Your task to perform on an android device: change timer sound Image 0: 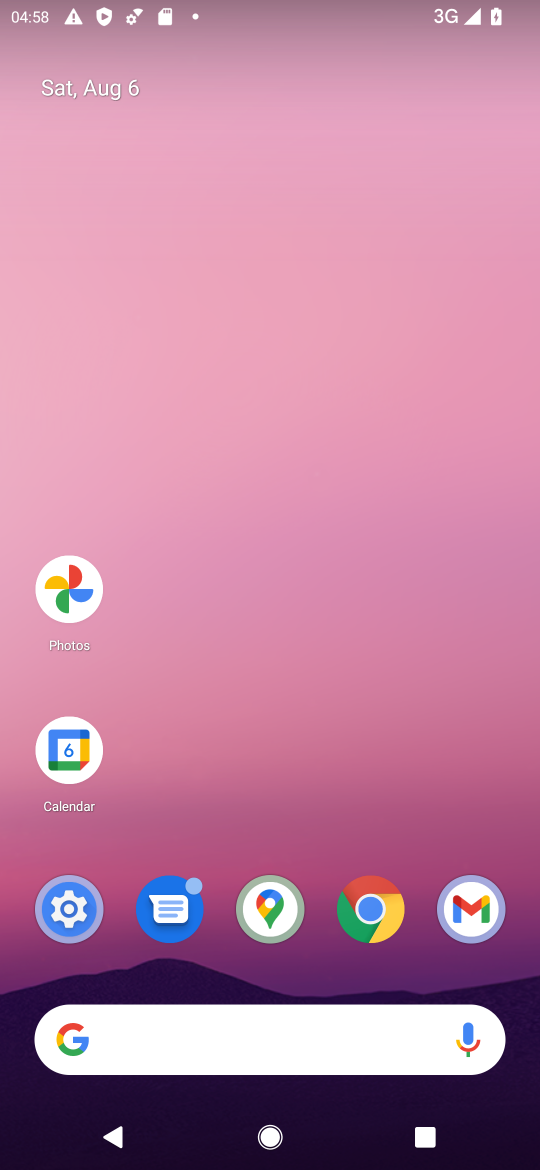
Step 0: drag from (301, 800) to (232, 435)
Your task to perform on an android device: change timer sound Image 1: 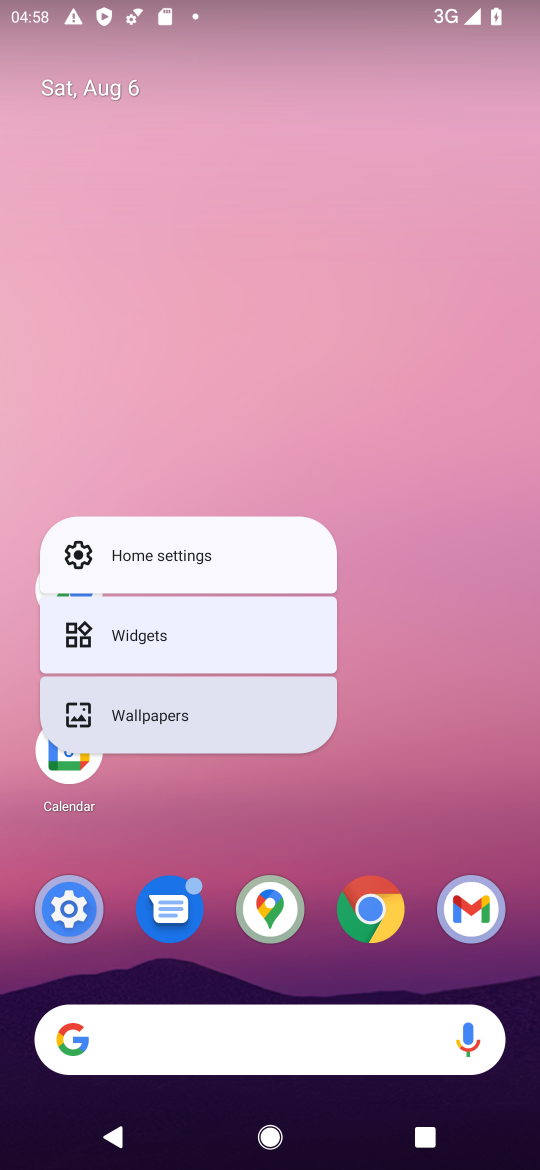
Step 1: click (445, 648)
Your task to perform on an android device: change timer sound Image 2: 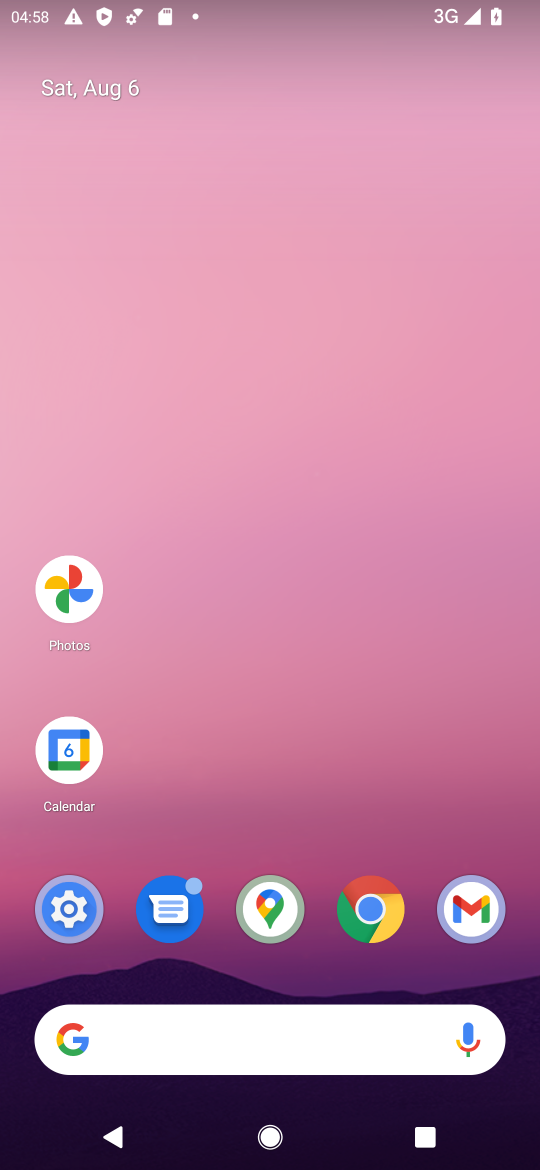
Step 2: drag from (301, 677) to (283, 223)
Your task to perform on an android device: change timer sound Image 3: 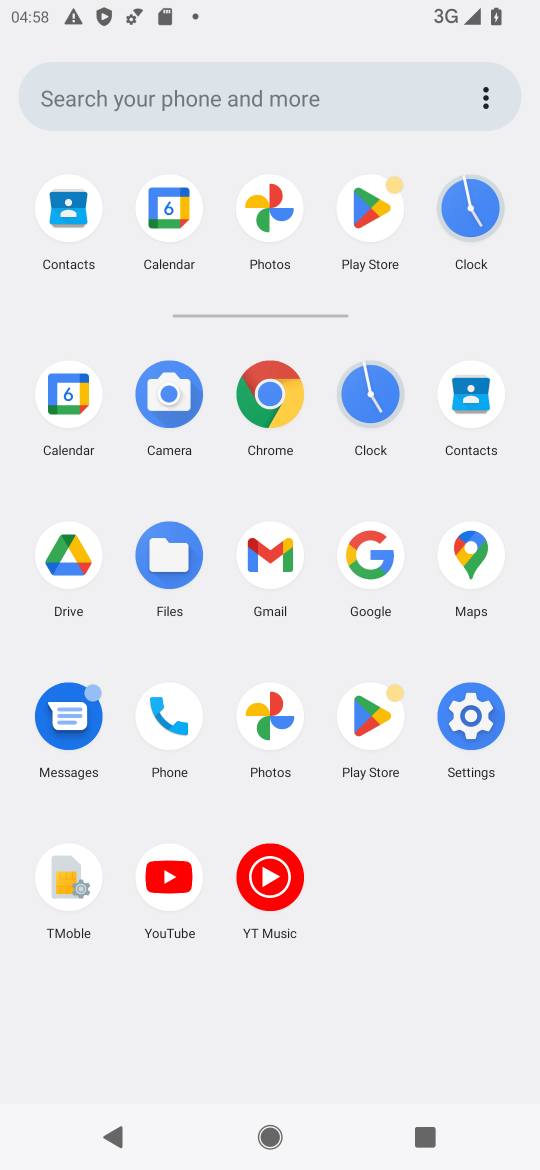
Step 3: click (358, 396)
Your task to perform on an android device: change timer sound Image 4: 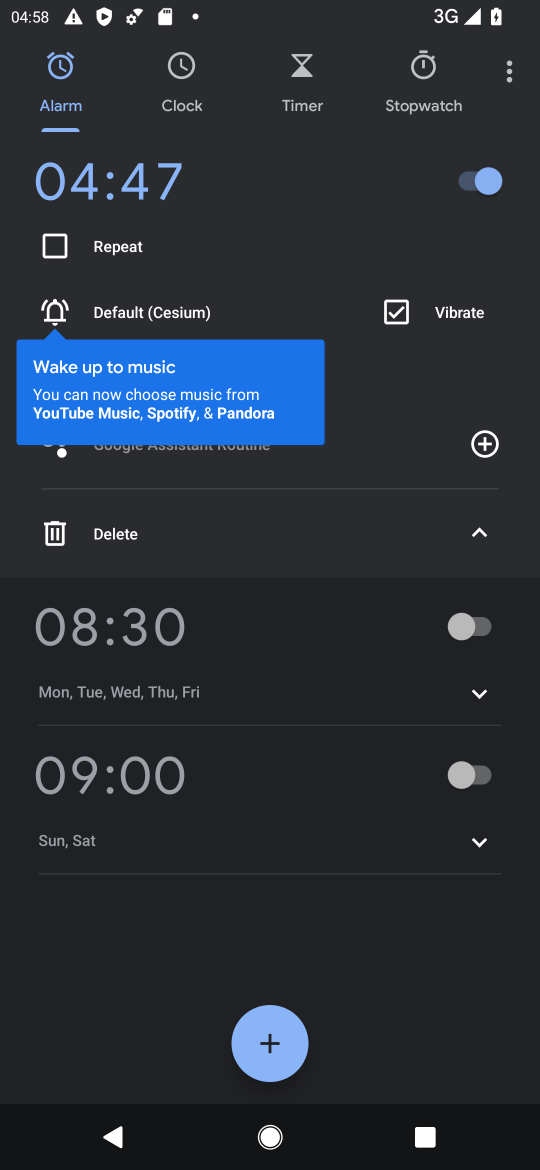
Step 4: click (516, 77)
Your task to perform on an android device: change timer sound Image 5: 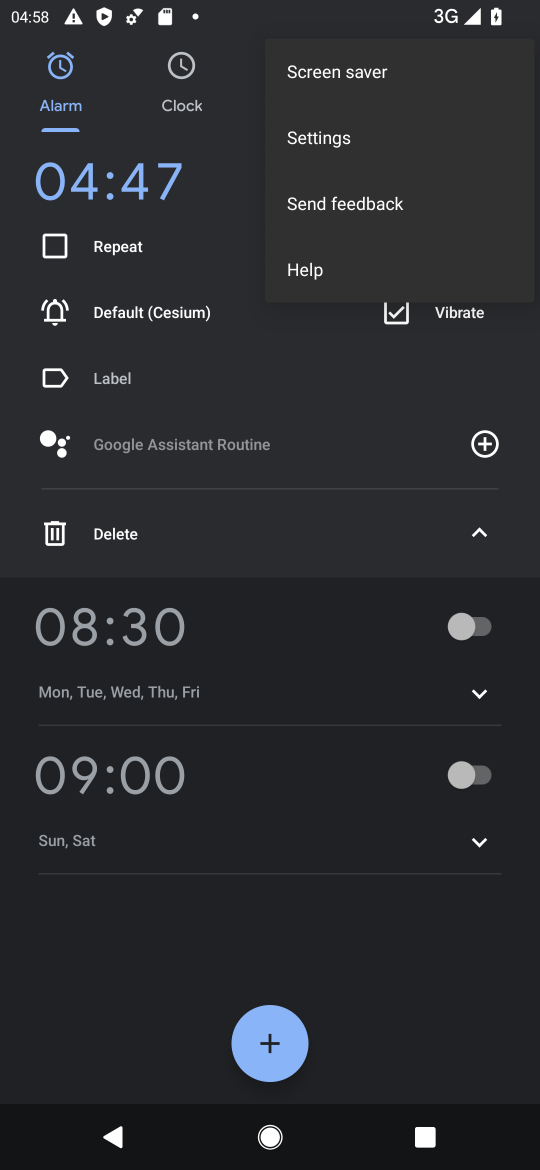
Step 5: click (328, 140)
Your task to perform on an android device: change timer sound Image 6: 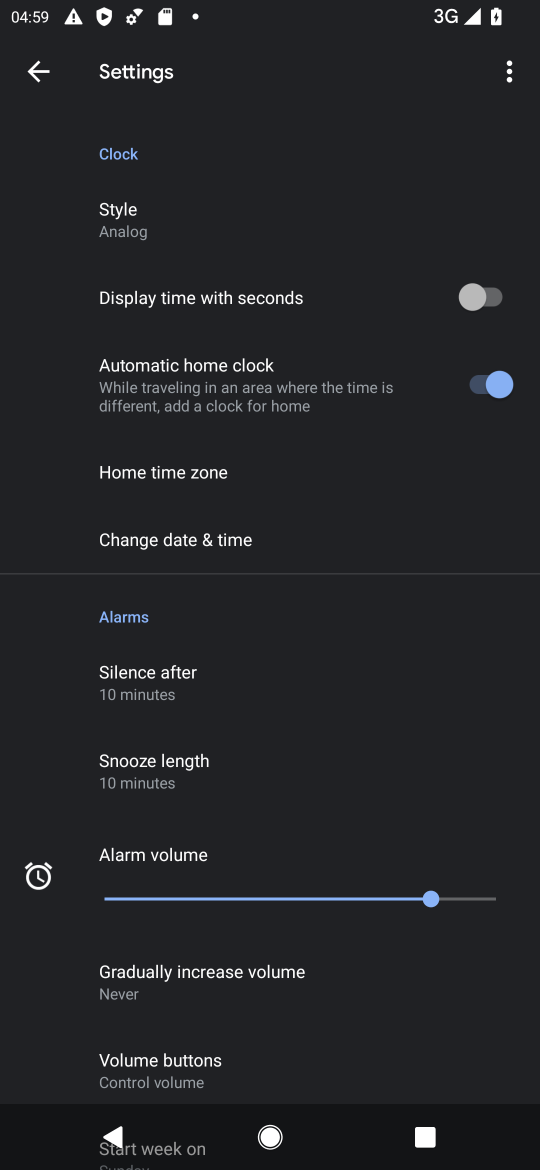
Step 6: drag from (282, 784) to (245, 499)
Your task to perform on an android device: change timer sound Image 7: 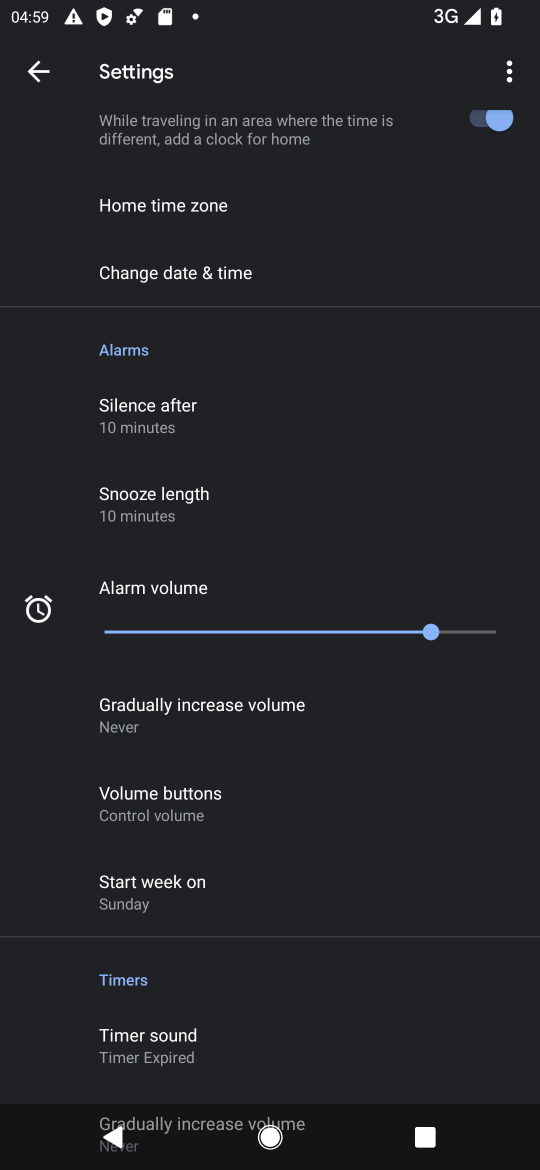
Step 7: click (160, 1029)
Your task to perform on an android device: change timer sound Image 8: 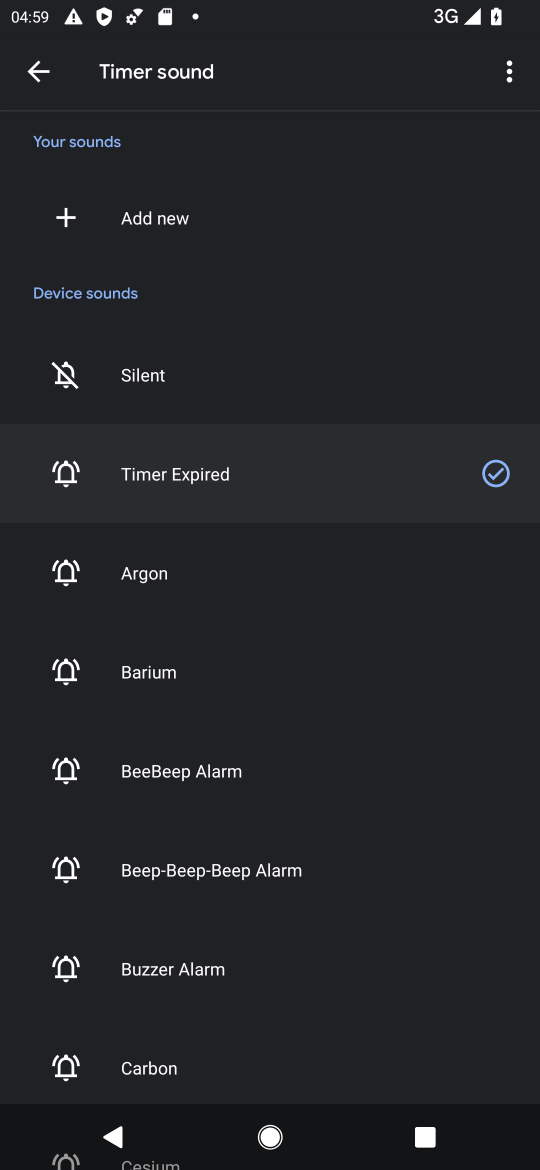
Step 8: click (137, 685)
Your task to perform on an android device: change timer sound Image 9: 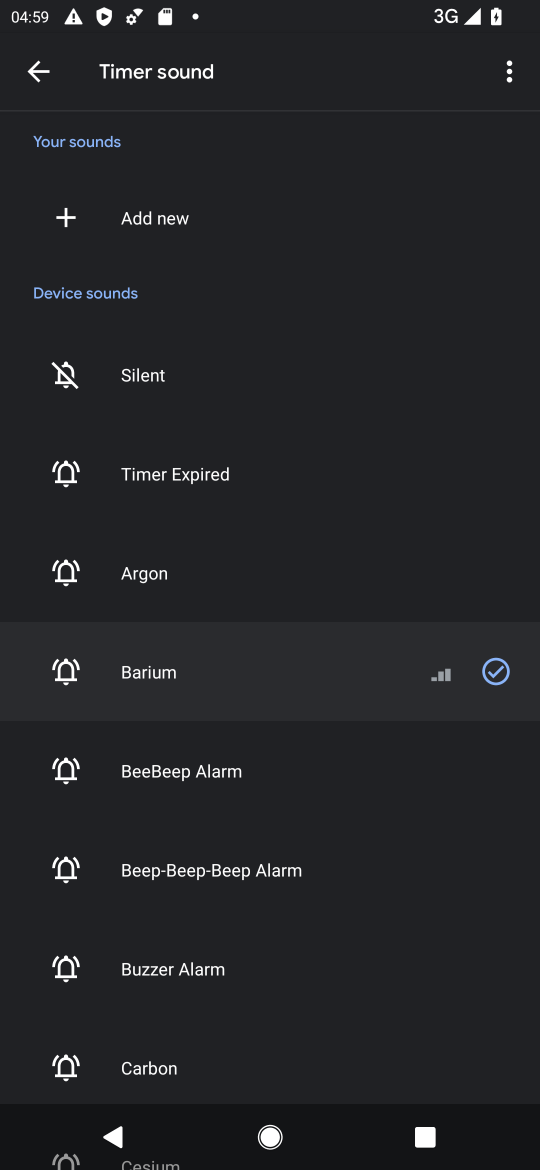
Step 9: task complete